Your task to perform on an android device: Search for pizza restaurants on Maps Image 0: 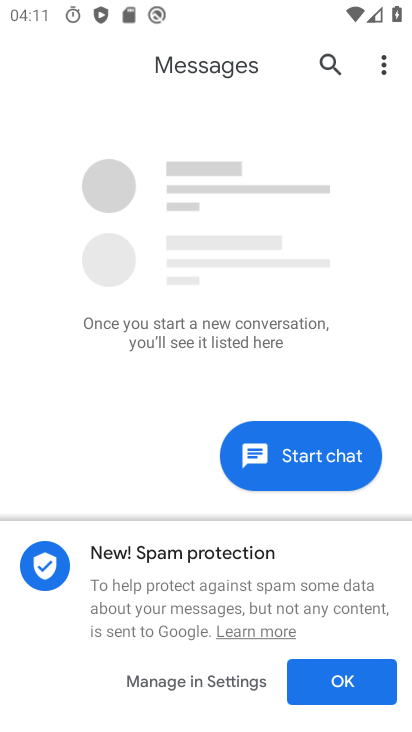
Step 0: press home button
Your task to perform on an android device: Search for pizza restaurants on Maps Image 1: 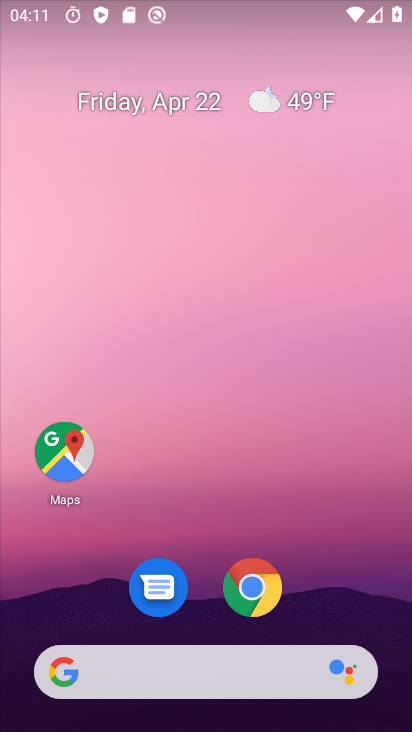
Step 1: click (60, 459)
Your task to perform on an android device: Search for pizza restaurants on Maps Image 2: 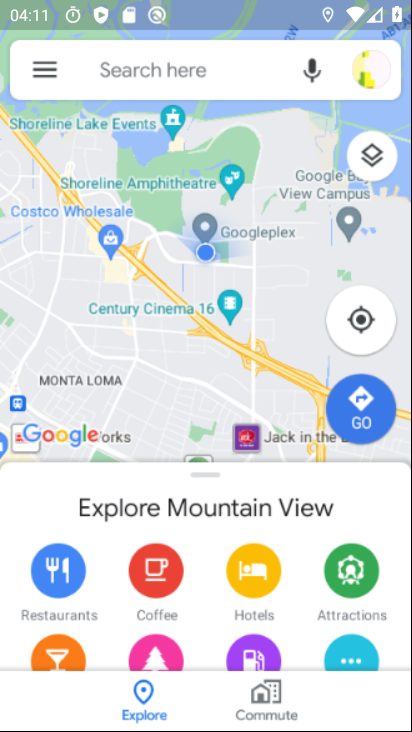
Step 2: click (146, 77)
Your task to perform on an android device: Search for pizza restaurants on Maps Image 3: 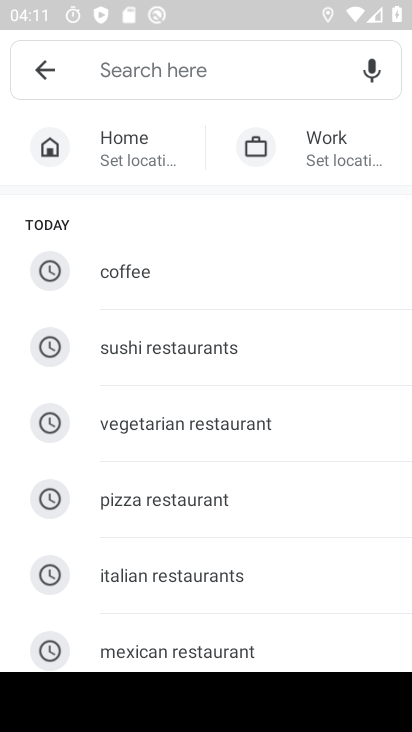
Step 3: type "pizza restaurant"
Your task to perform on an android device: Search for pizza restaurants on Maps Image 4: 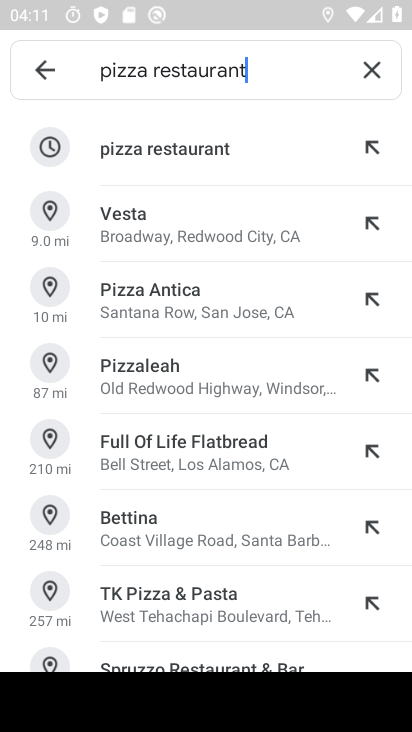
Step 4: click (167, 157)
Your task to perform on an android device: Search for pizza restaurants on Maps Image 5: 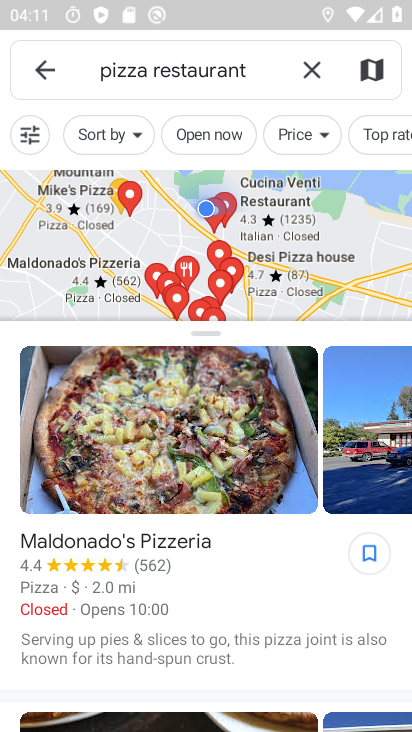
Step 5: task complete